Your task to perform on an android device: turn notification dots off Image 0: 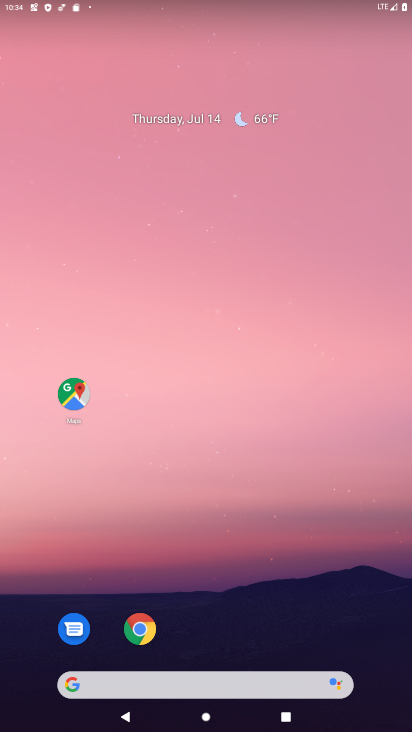
Step 0: drag from (295, 569) to (406, 33)
Your task to perform on an android device: turn notification dots off Image 1: 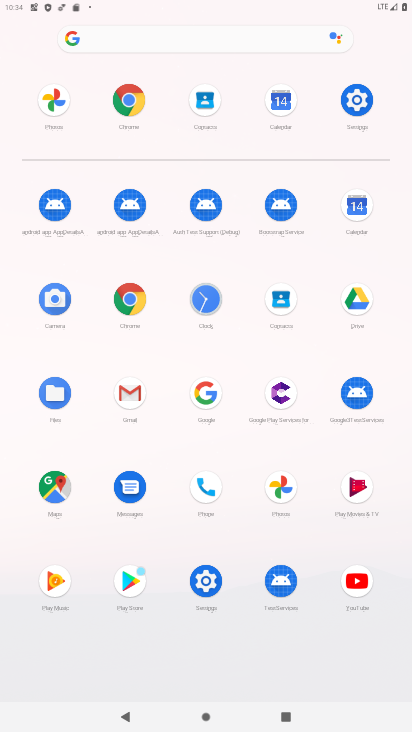
Step 1: click (367, 91)
Your task to perform on an android device: turn notification dots off Image 2: 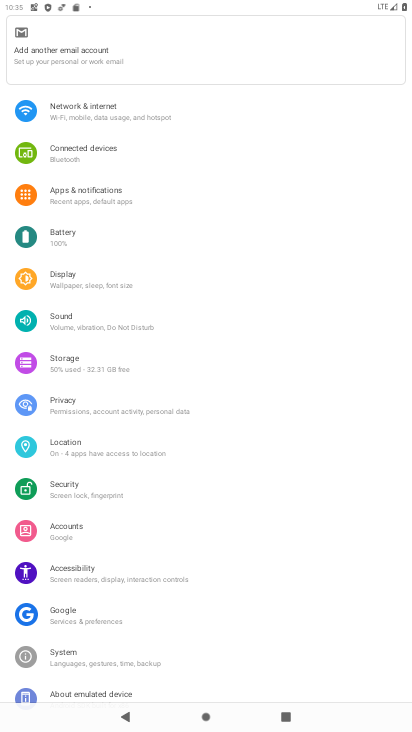
Step 2: click (112, 196)
Your task to perform on an android device: turn notification dots off Image 3: 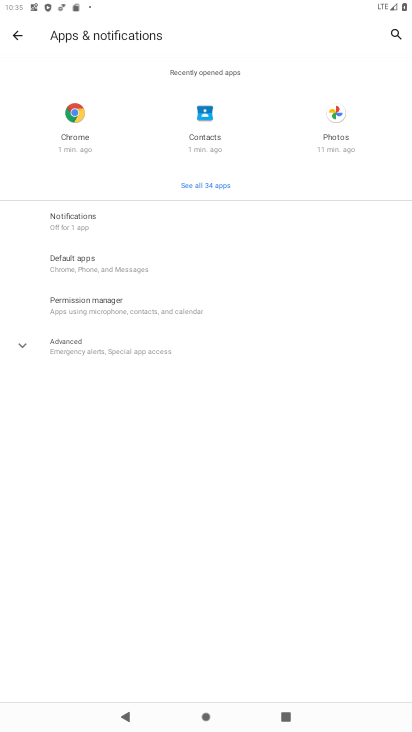
Step 3: click (81, 221)
Your task to perform on an android device: turn notification dots off Image 4: 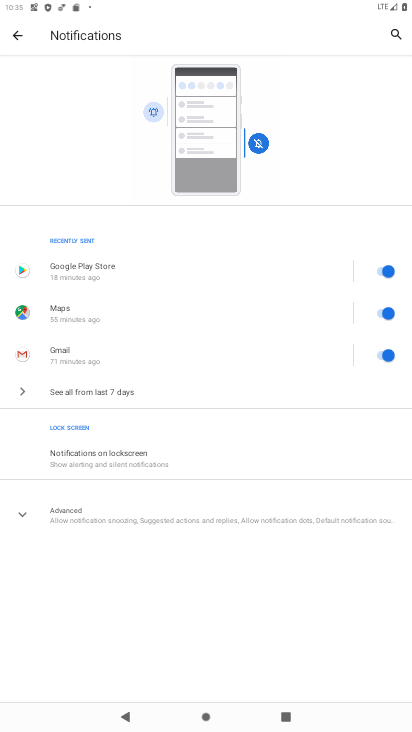
Step 4: click (16, 514)
Your task to perform on an android device: turn notification dots off Image 5: 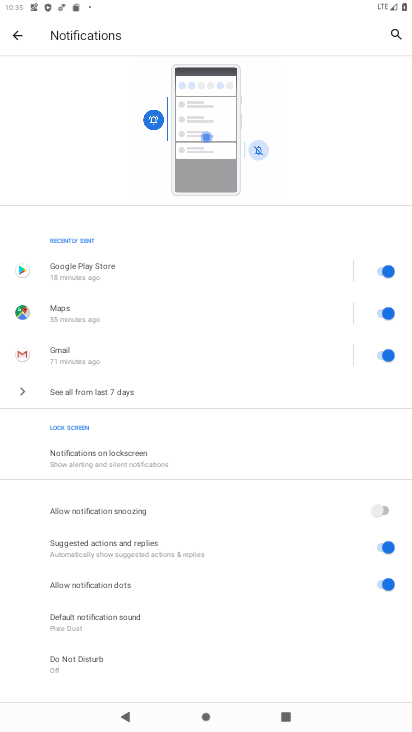
Step 5: click (392, 579)
Your task to perform on an android device: turn notification dots off Image 6: 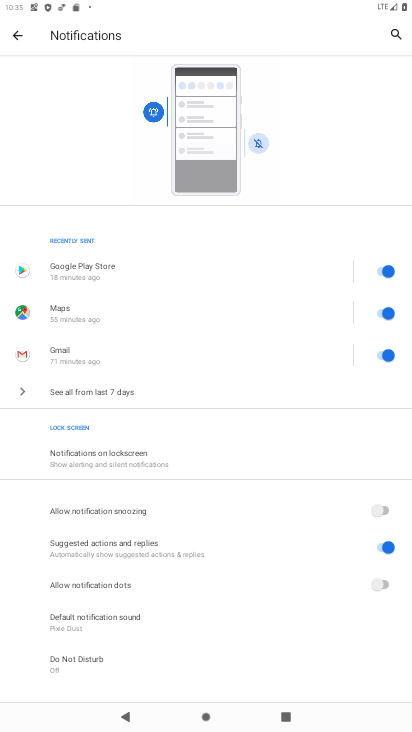
Step 6: task complete